Your task to perform on an android device: turn off notifications in google photos Image 0: 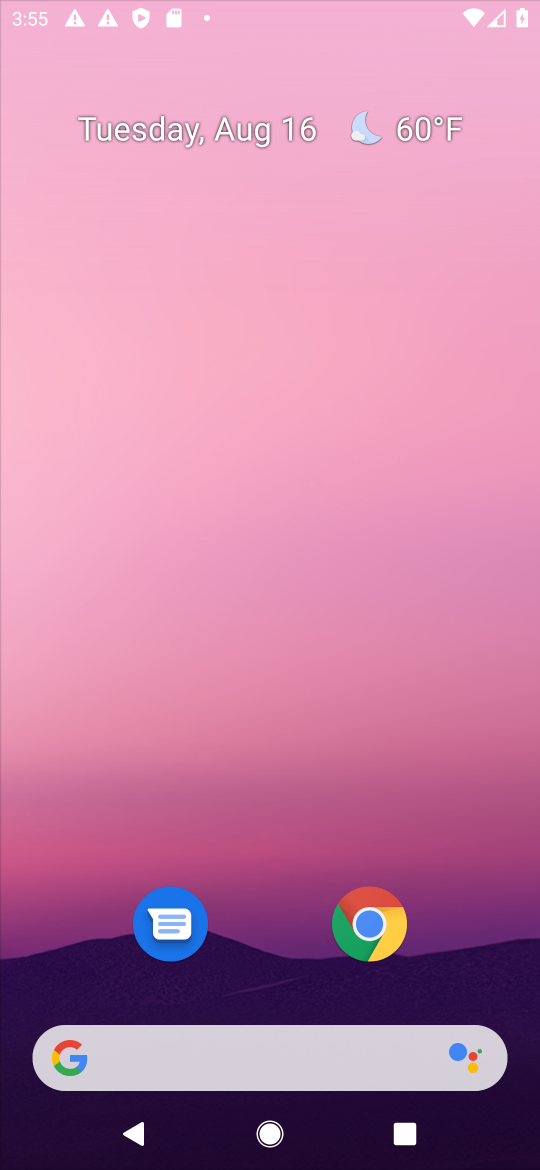
Step 0: press home button
Your task to perform on an android device: turn off notifications in google photos Image 1: 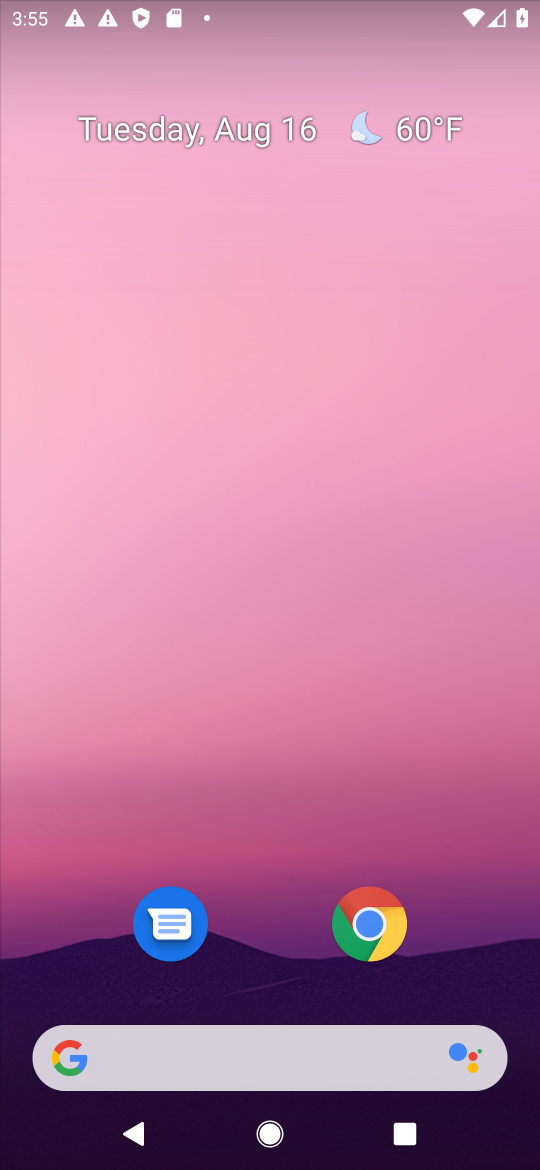
Step 1: drag from (287, 830) to (290, 250)
Your task to perform on an android device: turn off notifications in google photos Image 2: 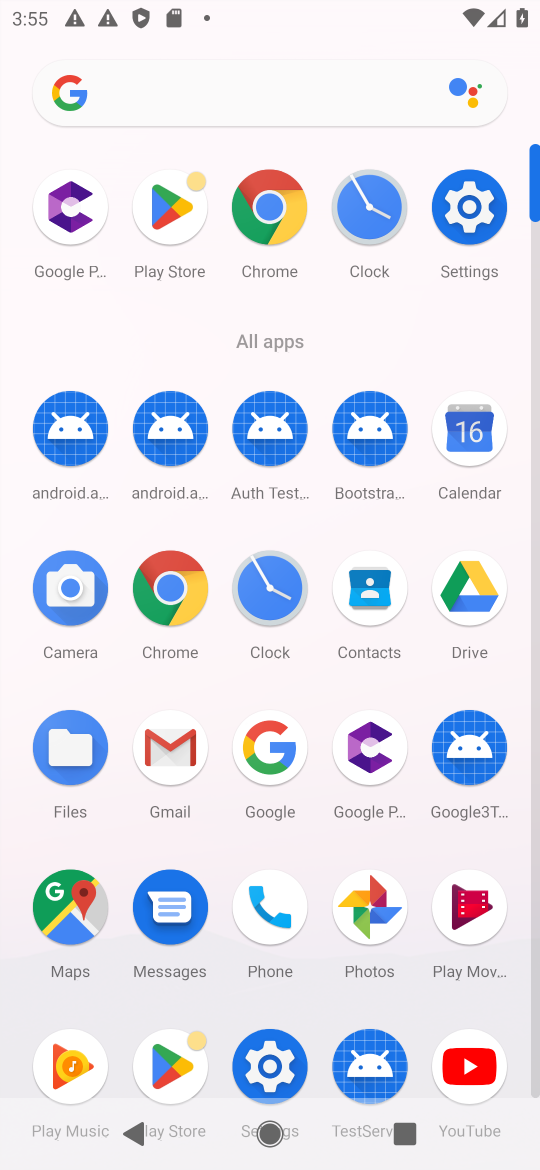
Step 2: click (481, 208)
Your task to perform on an android device: turn off notifications in google photos Image 3: 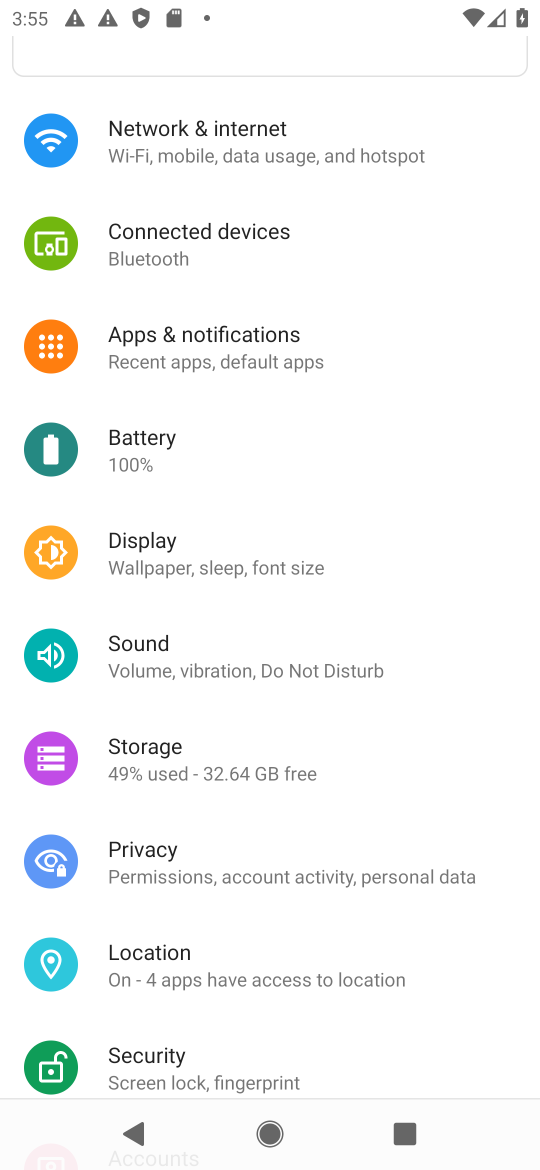
Step 3: click (210, 357)
Your task to perform on an android device: turn off notifications in google photos Image 4: 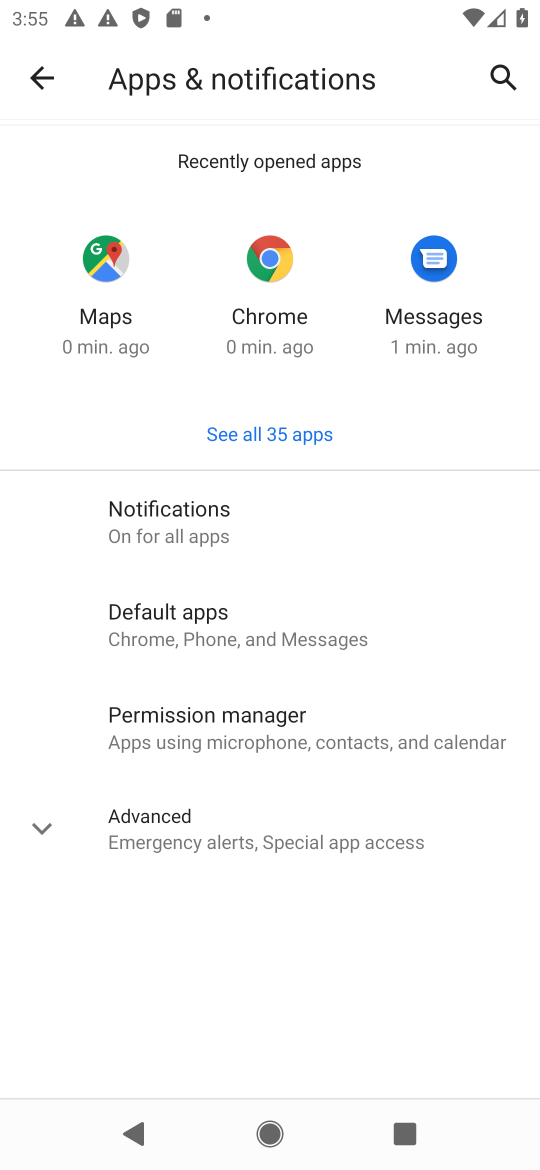
Step 4: click (289, 427)
Your task to perform on an android device: turn off notifications in google photos Image 5: 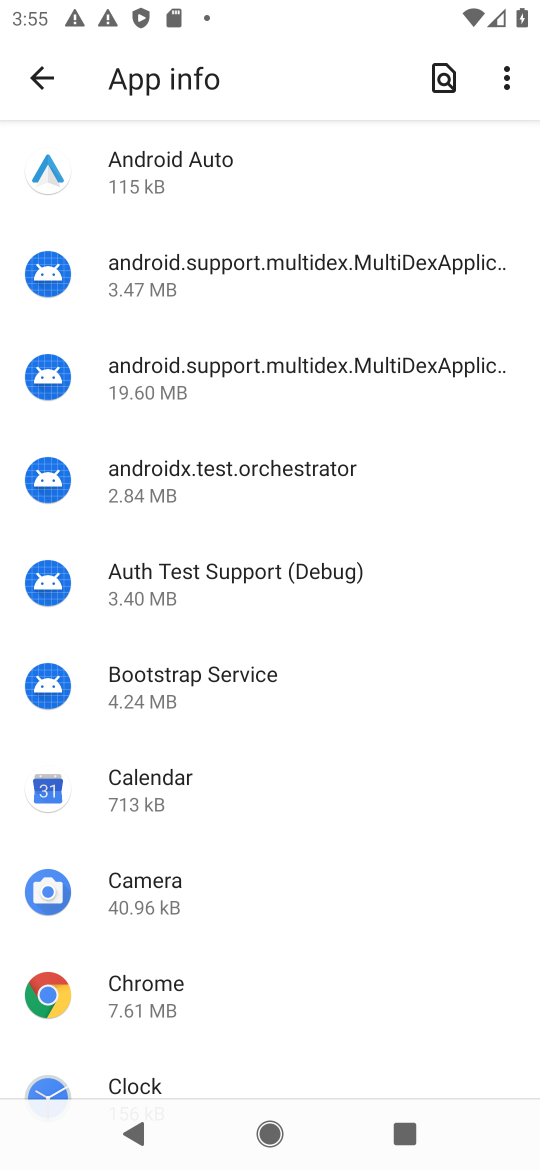
Step 5: drag from (135, 1024) to (105, 323)
Your task to perform on an android device: turn off notifications in google photos Image 6: 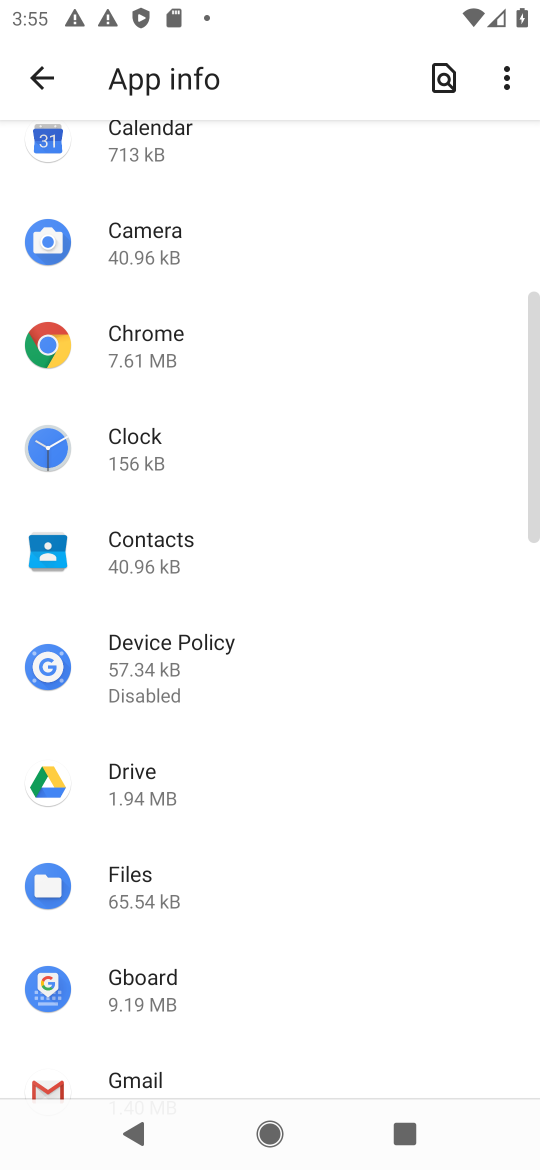
Step 6: drag from (174, 986) to (196, 308)
Your task to perform on an android device: turn off notifications in google photos Image 7: 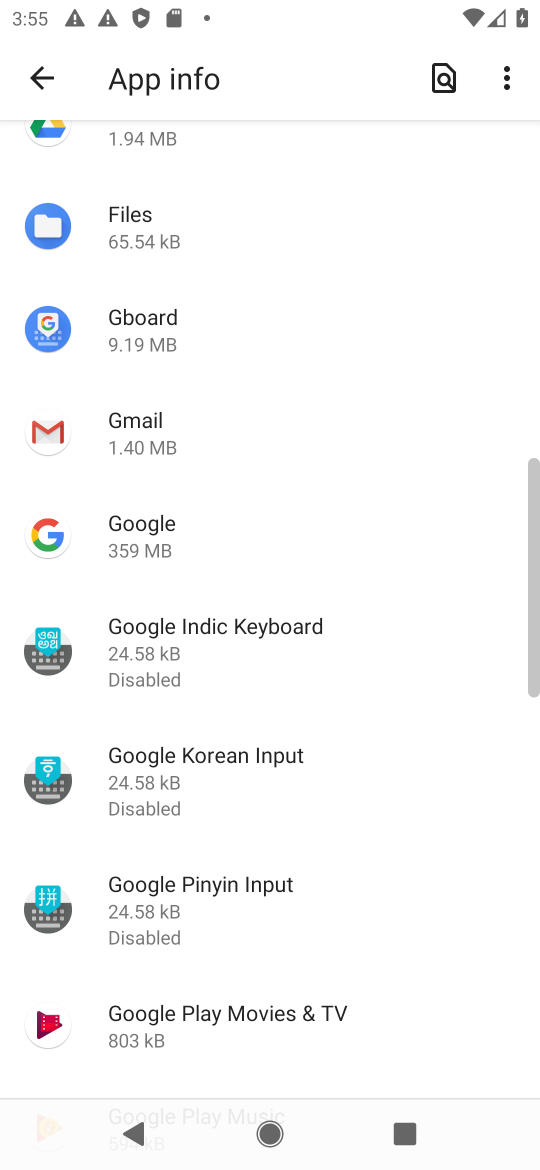
Step 7: drag from (147, 1033) to (162, 219)
Your task to perform on an android device: turn off notifications in google photos Image 8: 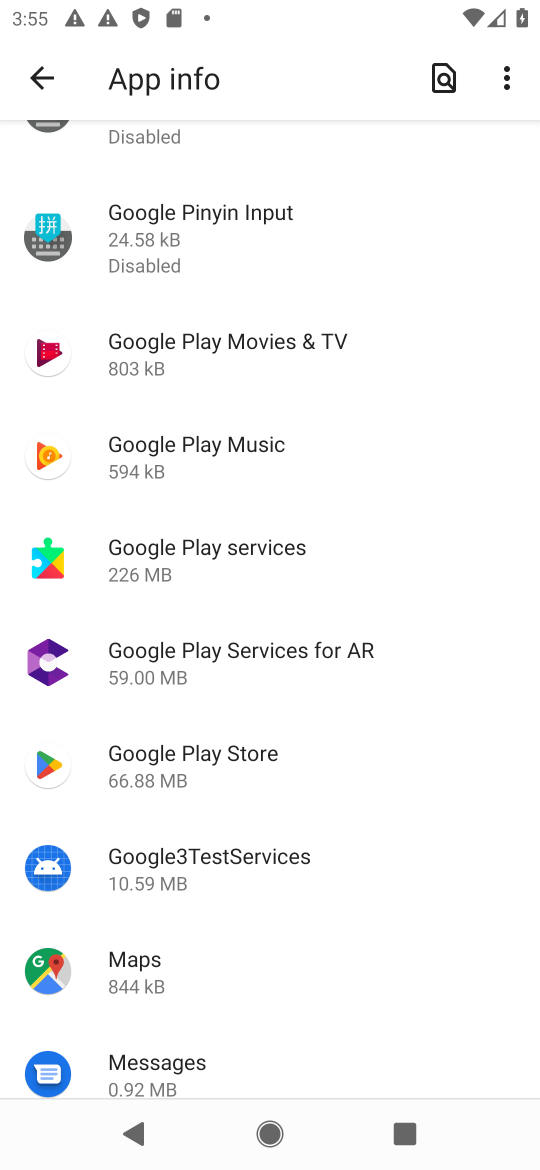
Step 8: drag from (227, 998) to (273, 275)
Your task to perform on an android device: turn off notifications in google photos Image 9: 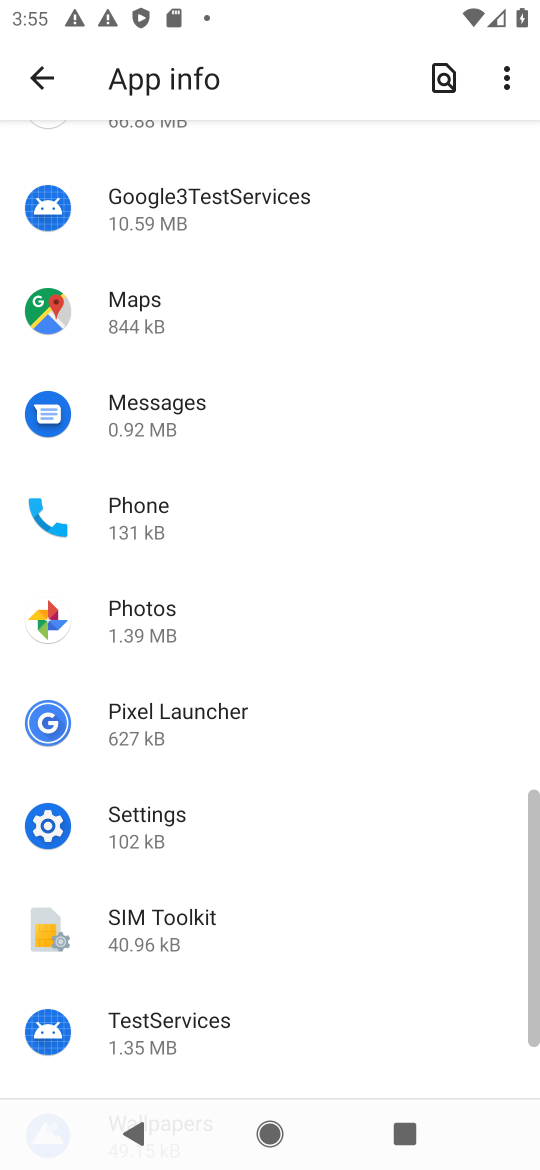
Step 9: click (231, 958)
Your task to perform on an android device: turn off notifications in google photos Image 10: 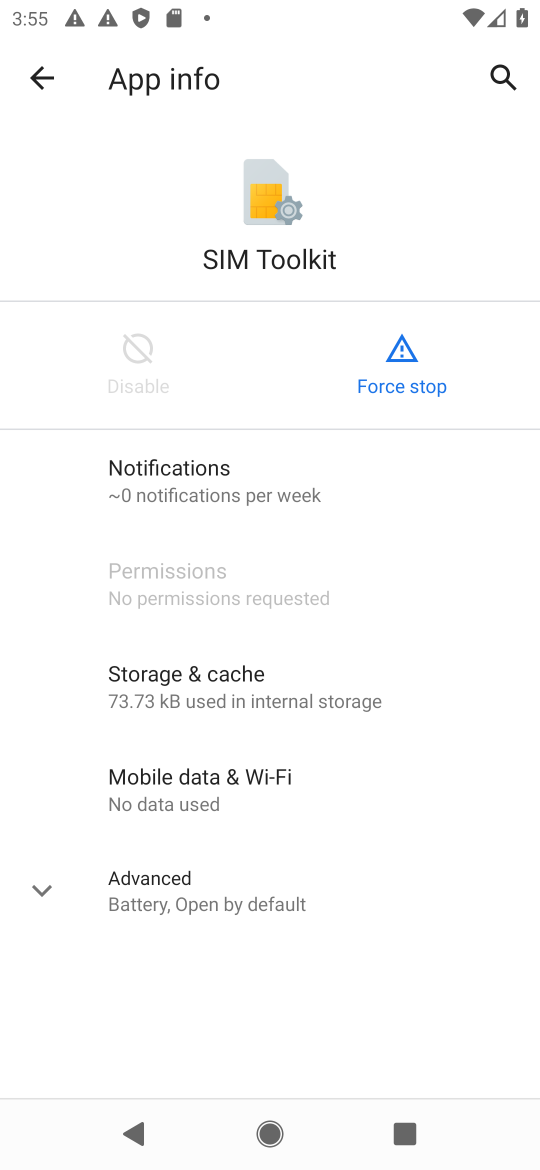
Step 10: press back button
Your task to perform on an android device: turn off notifications in google photos Image 11: 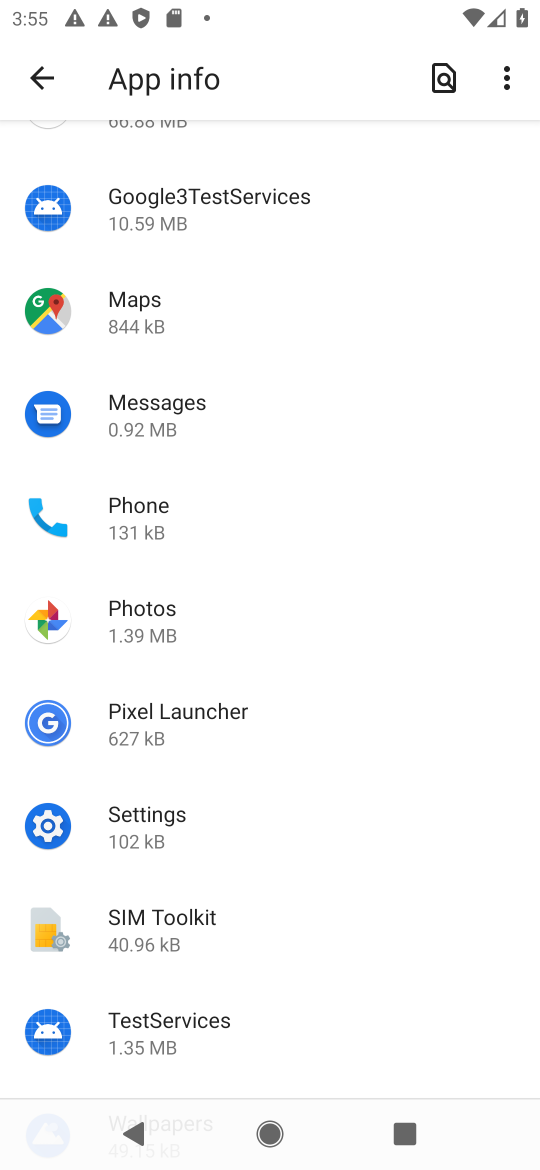
Step 11: click (250, 632)
Your task to perform on an android device: turn off notifications in google photos Image 12: 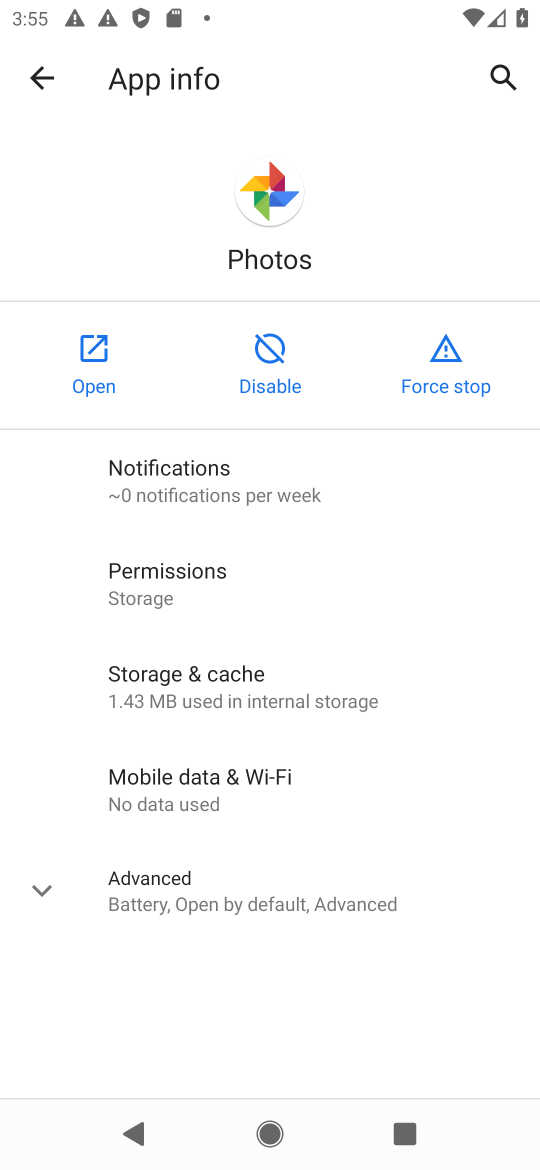
Step 12: click (254, 511)
Your task to perform on an android device: turn off notifications in google photos Image 13: 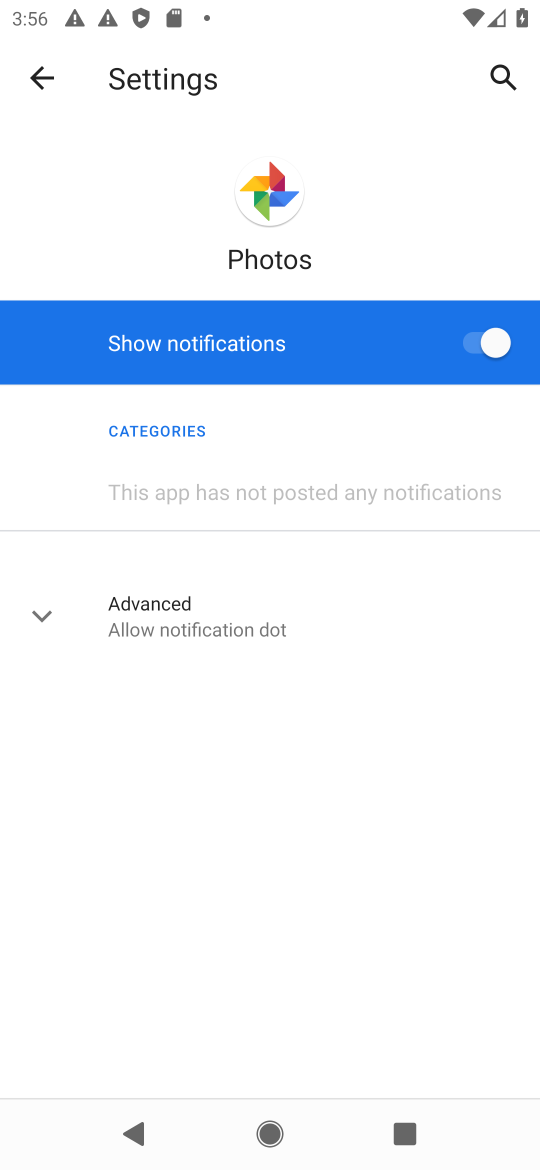
Step 13: click (473, 353)
Your task to perform on an android device: turn off notifications in google photos Image 14: 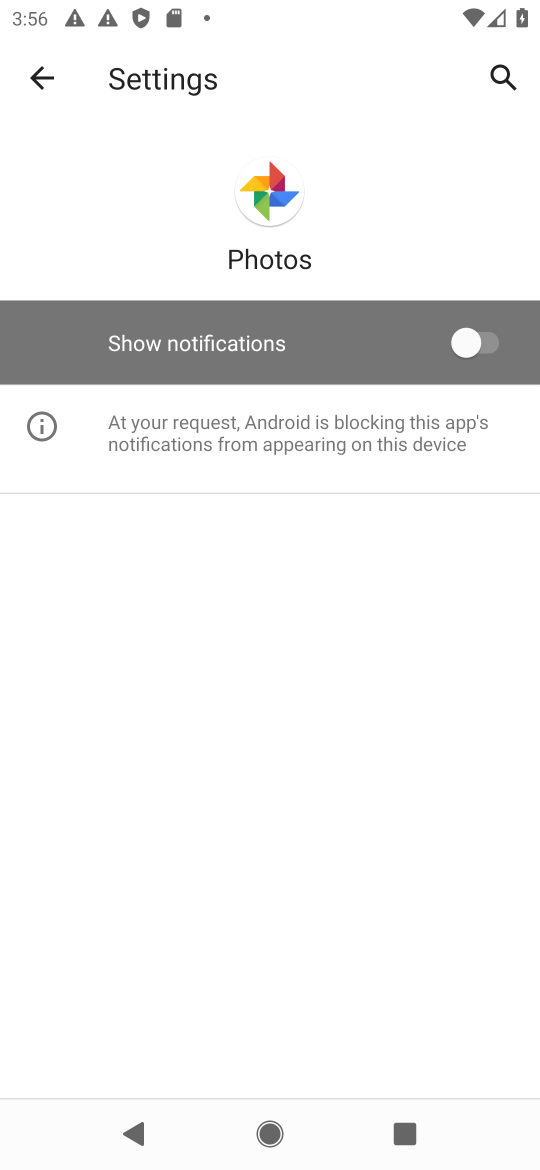
Step 14: task complete